Your task to perform on an android device: set default search engine in the chrome app Image 0: 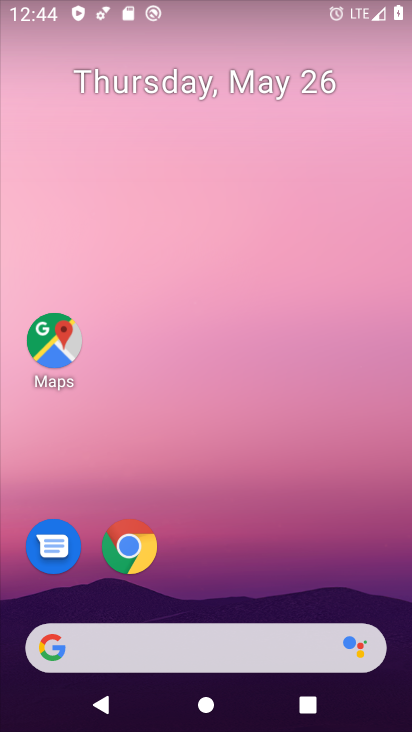
Step 0: drag from (406, 622) to (280, 109)
Your task to perform on an android device: set default search engine in the chrome app Image 1: 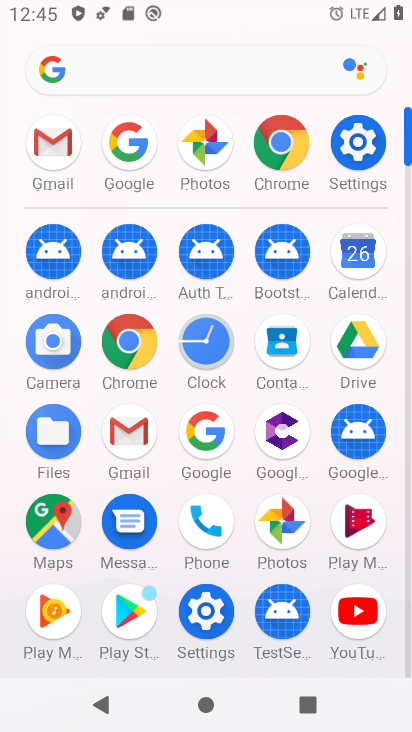
Step 1: click (127, 327)
Your task to perform on an android device: set default search engine in the chrome app Image 2: 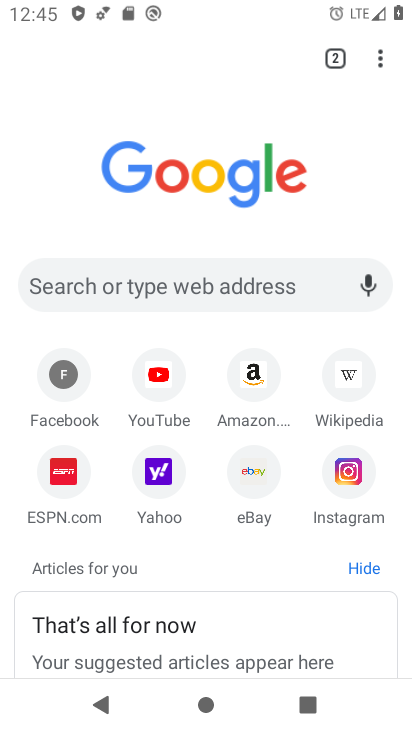
Step 2: click (381, 53)
Your task to perform on an android device: set default search engine in the chrome app Image 3: 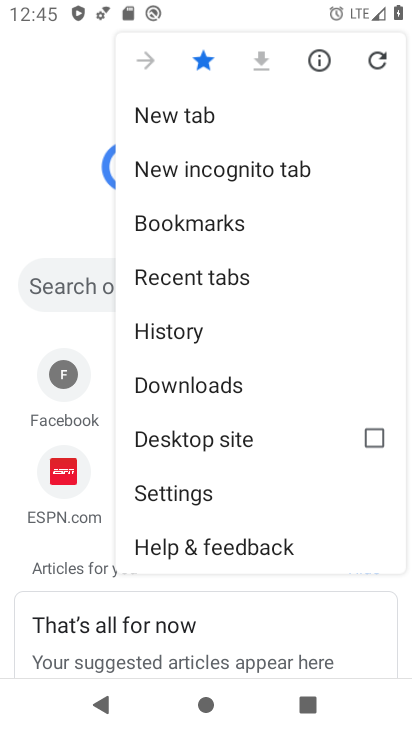
Step 3: click (209, 503)
Your task to perform on an android device: set default search engine in the chrome app Image 4: 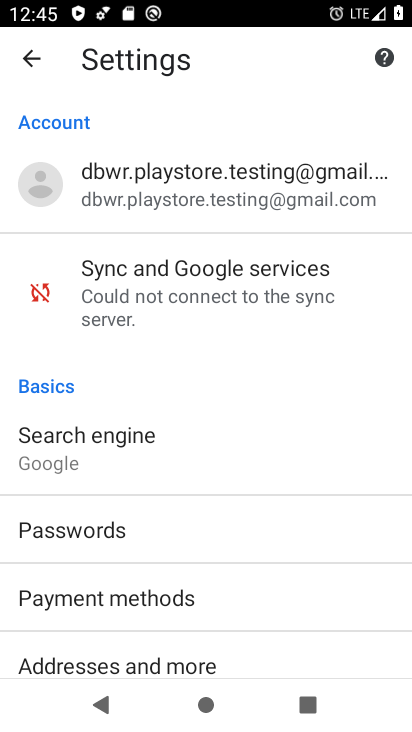
Step 4: click (154, 474)
Your task to perform on an android device: set default search engine in the chrome app Image 5: 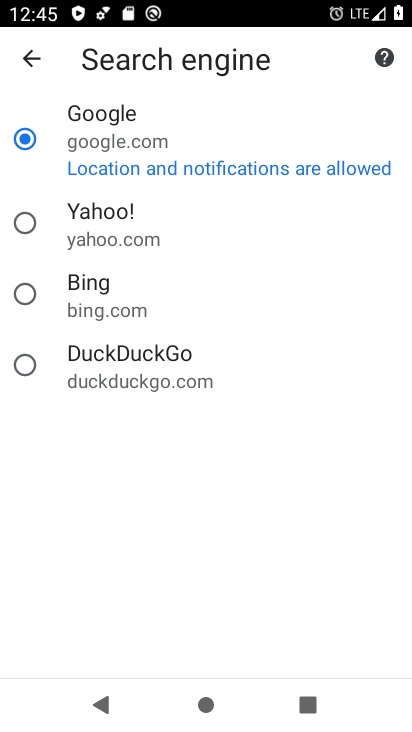
Step 5: click (85, 303)
Your task to perform on an android device: set default search engine in the chrome app Image 6: 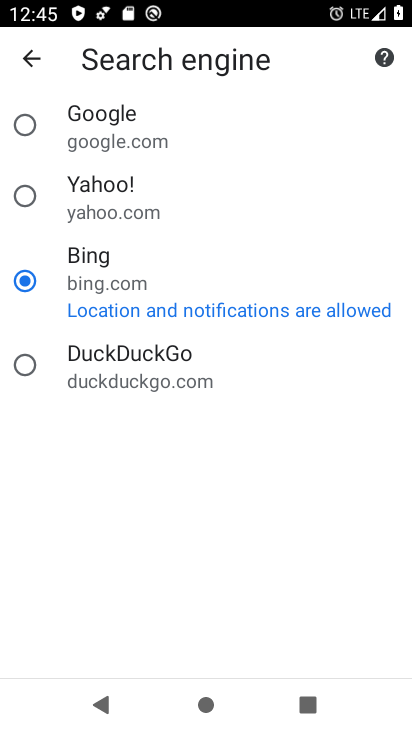
Step 6: task complete